Your task to perform on an android device: choose inbox layout in the gmail app Image 0: 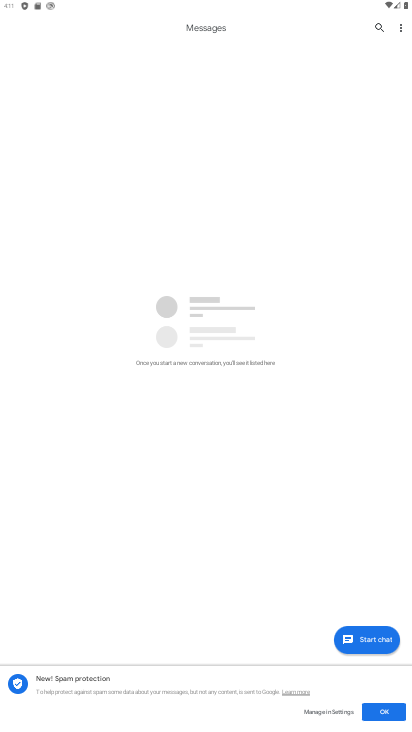
Step 0: press home button
Your task to perform on an android device: choose inbox layout in the gmail app Image 1: 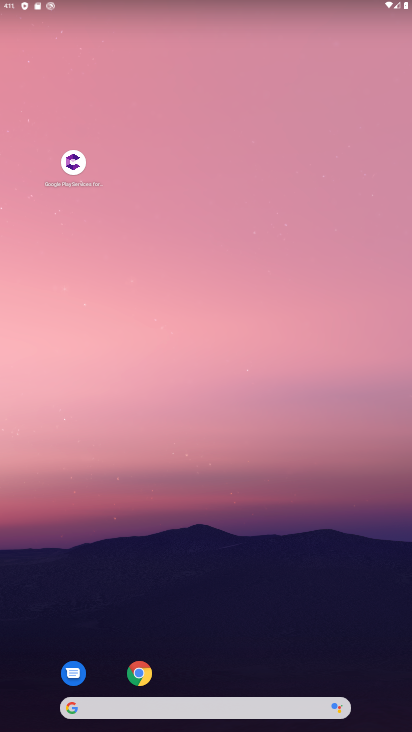
Step 1: drag from (380, 601) to (316, 85)
Your task to perform on an android device: choose inbox layout in the gmail app Image 2: 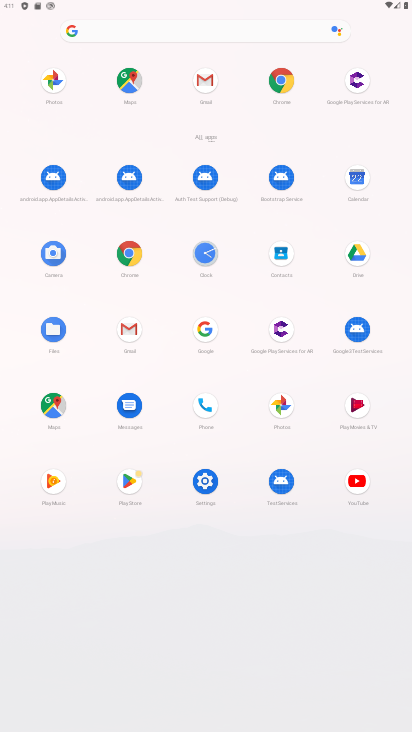
Step 2: click (129, 321)
Your task to perform on an android device: choose inbox layout in the gmail app Image 3: 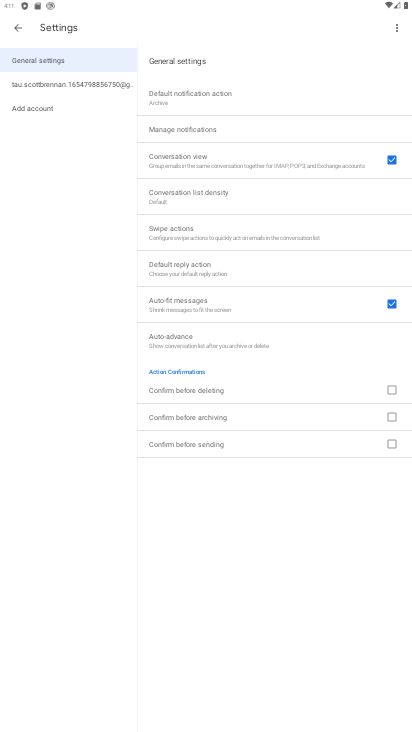
Step 3: click (51, 79)
Your task to perform on an android device: choose inbox layout in the gmail app Image 4: 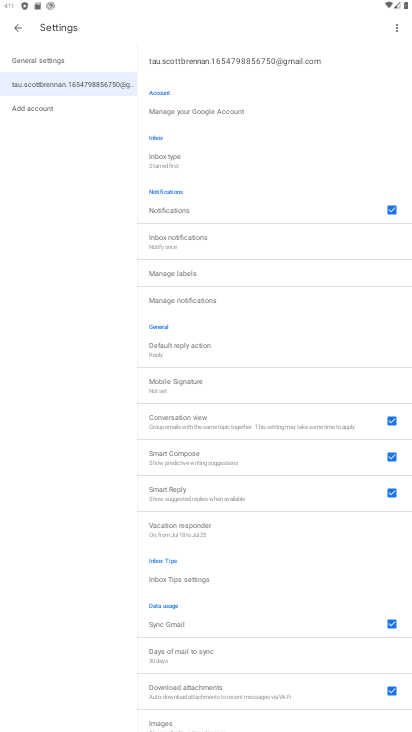
Step 4: click (194, 154)
Your task to perform on an android device: choose inbox layout in the gmail app Image 5: 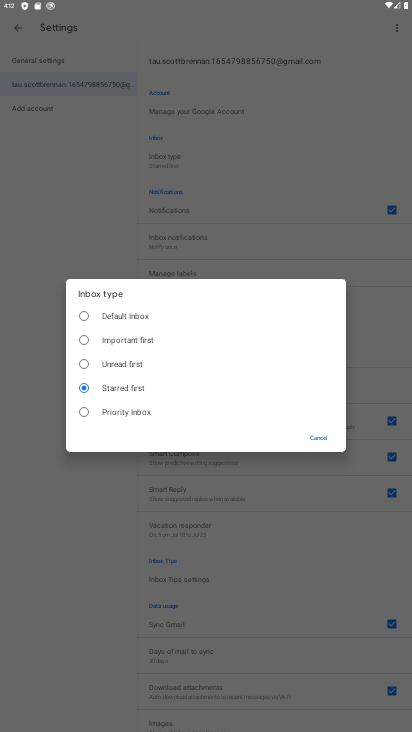
Step 5: click (123, 409)
Your task to perform on an android device: choose inbox layout in the gmail app Image 6: 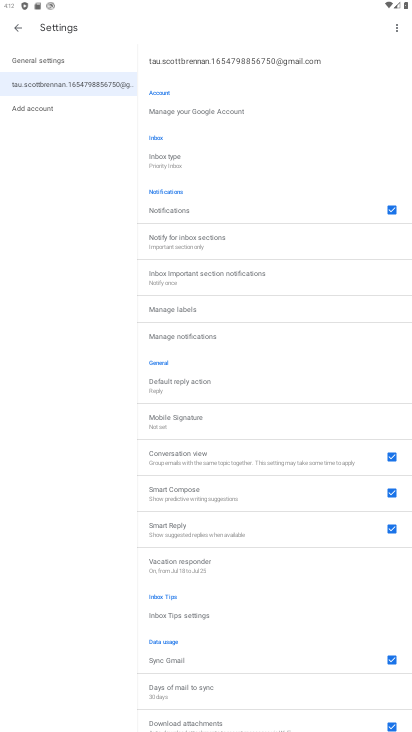
Step 6: task complete